Your task to perform on an android device: turn off location Image 0: 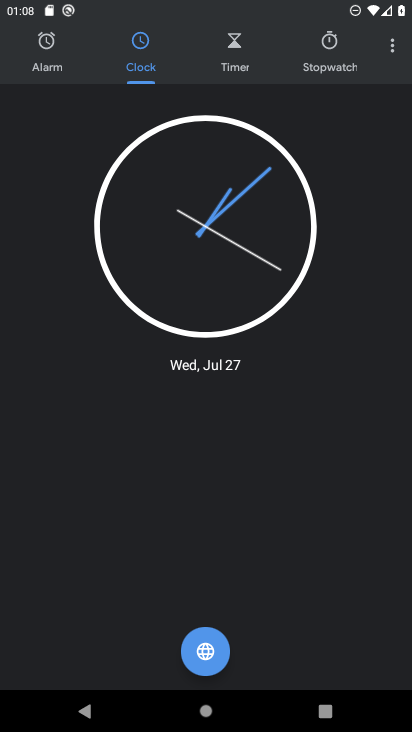
Step 0: press home button
Your task to perform on an android device: turn off location Image 1: 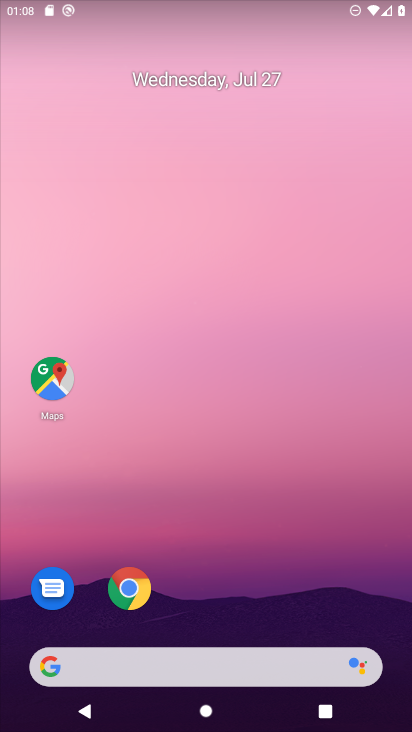
Step 1: drag from (34, 675) to (258, 189)
Your task to perform on an android device: turn off location Image 2: 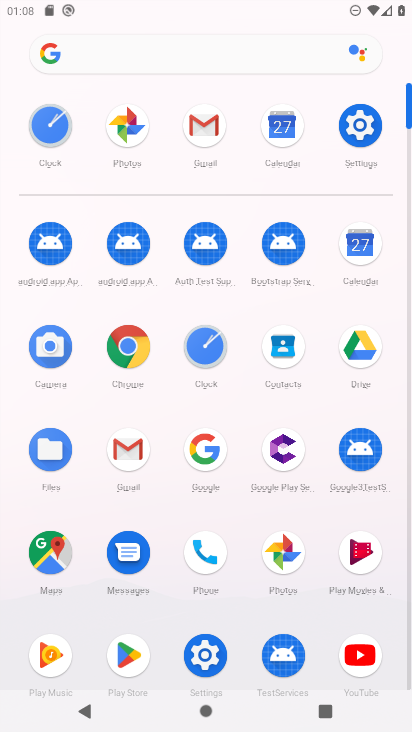
Step 2: click (211, 661)
Your task to perform on an android device: turn off location Image 3: 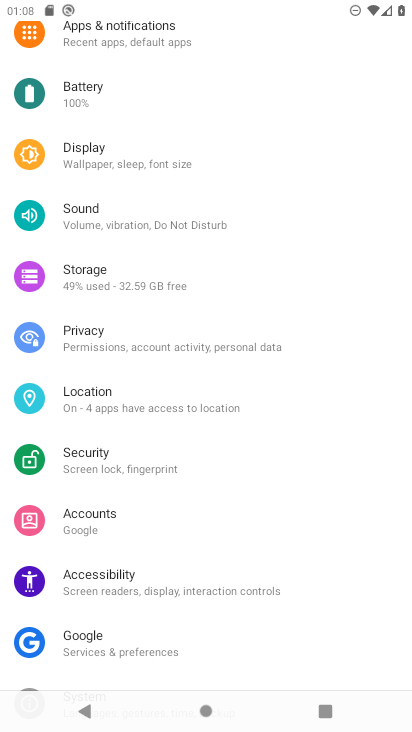
Step 3: click (95, 408)
Your task to perform on an android device: turn off location Image 4: 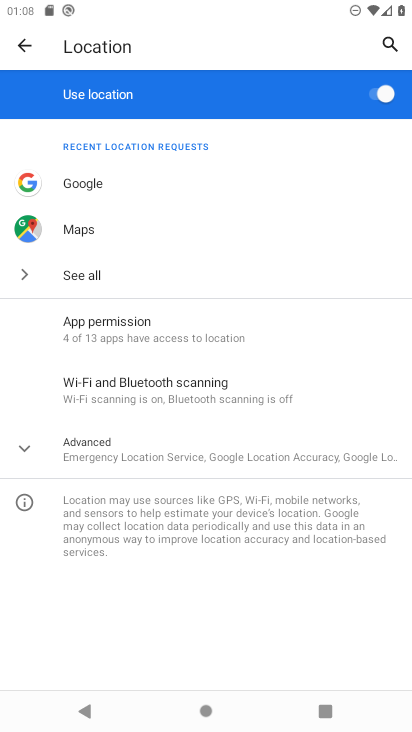
Step 4: task complete